Your task to perform on an android device: Open Google Chrome Image 0: 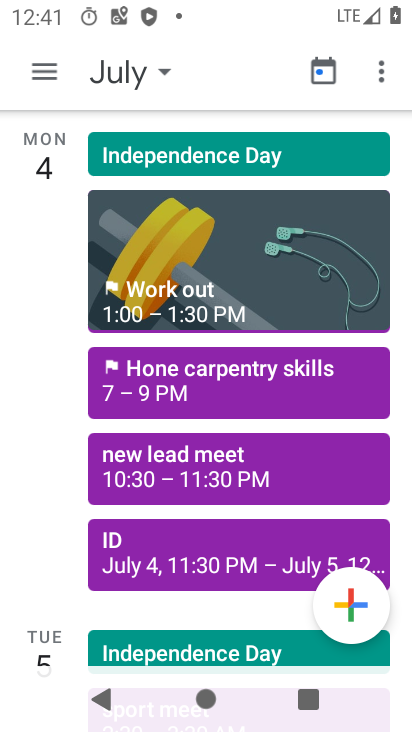
Step 0: press home button
Your task to perform on an android device: Open Google Chrome Image 1: 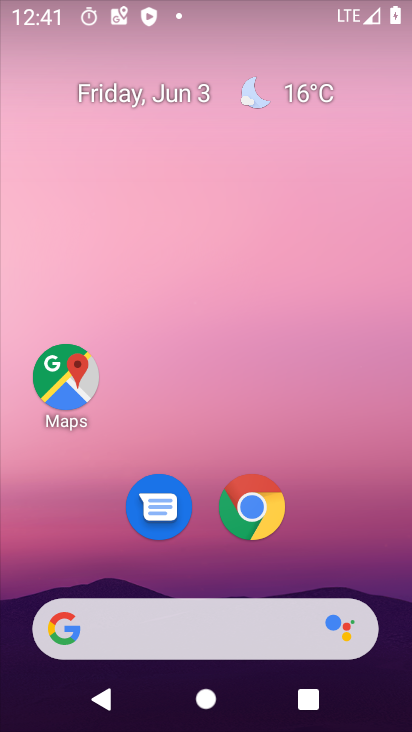
Step 1: drag from (386, 638) to (321, 81)
Your task to perform on an android device: Open Google Chrome Image 2: 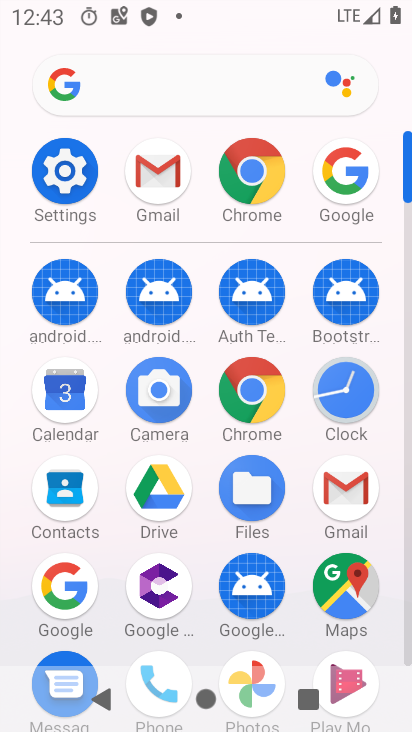
Step 2: click (243, 408)
Your task to perform on an android device: Open Google Chrome Image 3: 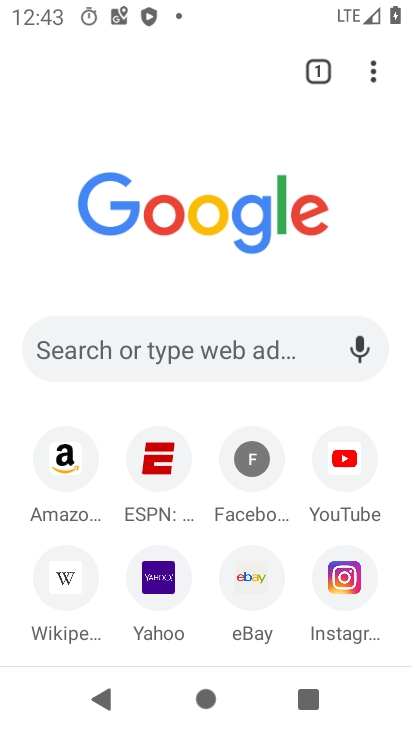
Step 3: task complete